Your task to perform on an android device: Open Google Chrome and click the shortcut for Amazon.com Image 0: 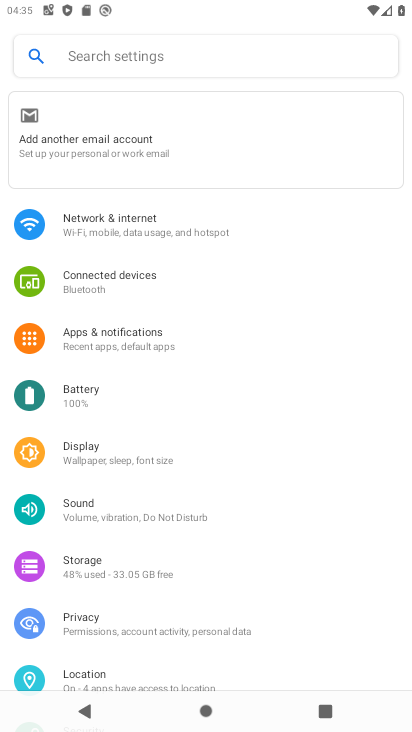
Step 0: press home button
Your task to perform on an android device: Open Google Chrome and click the shortcut for Amazon.com Image 1: 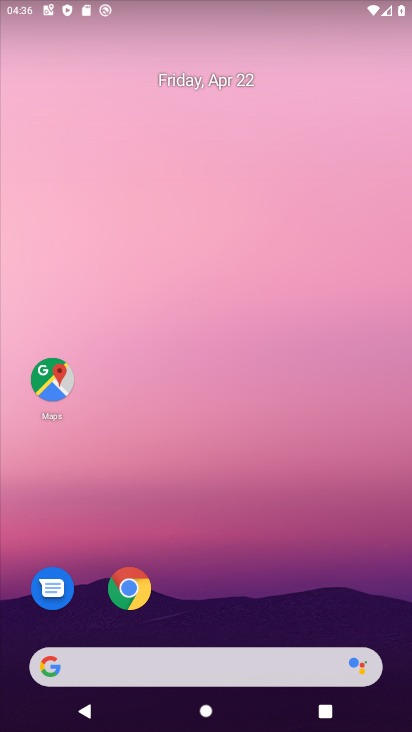
Step 1: click (143, 593)
Your task to perform on an android device: Open Google Chrome and click the shortcut for Amazon.com Image 2: 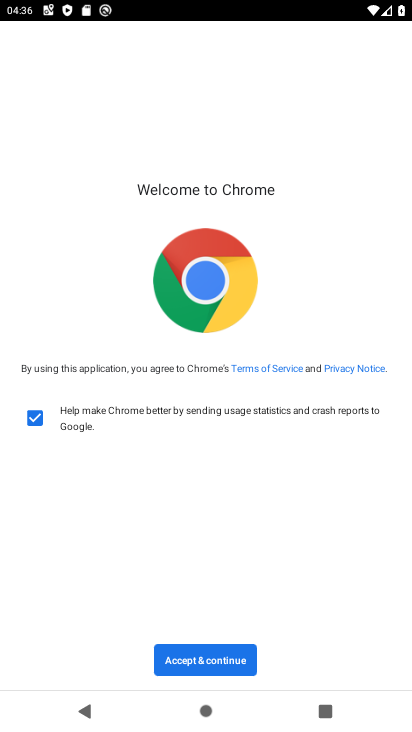
Step 2: click (199, 656)
Your task to perform on an android device: Open Google Chrome and click the shortcut for Amazon.com Image 3: 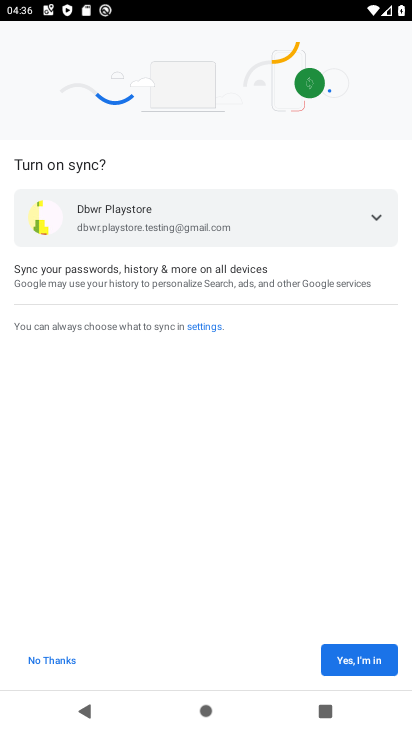
Step 3: click (340, 653)
Your task to perform on an android device: Open Google Chrome and click the shortcut for Amazon.com Image 4: 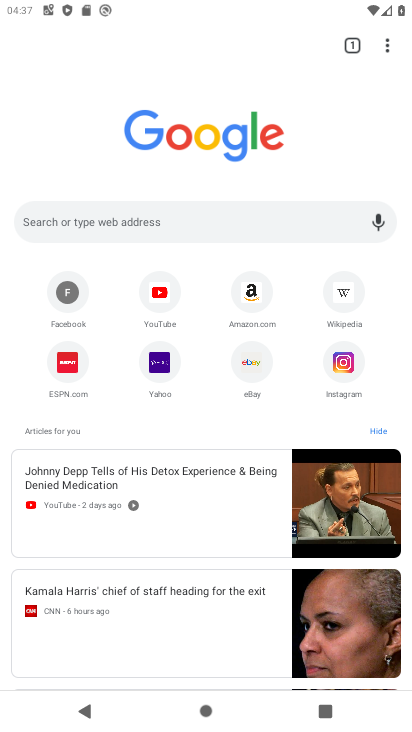
Step 4: click (251, 285)
Your task to perform on an android device: Open Google Chrome and click the shortcut for Amazon.com Image 5: 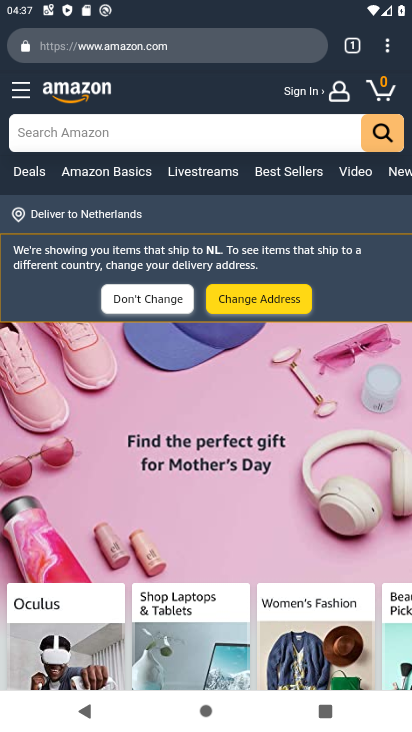
Step 5: task complete